Your task to perform on an android device: Go to Android settings Image 0: 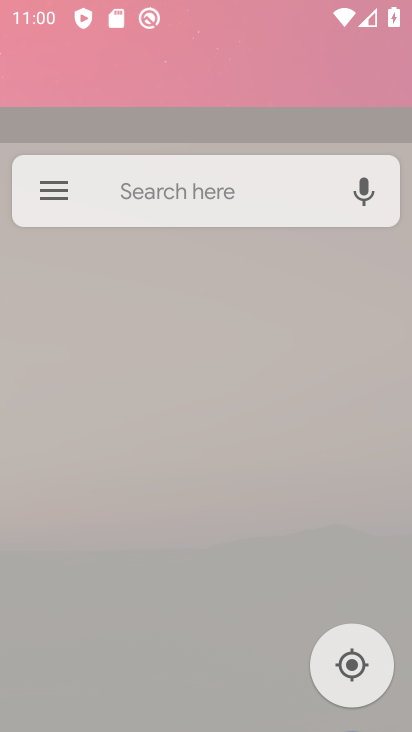
Step 0: press home button
Your task to perform on an android device: Go to Android settings Image 1: 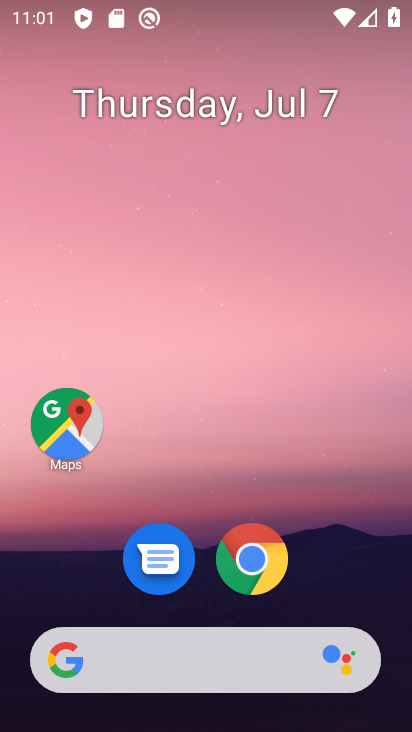
Step 1: drag from (353, 551) to (348, 71)
Your task to perform on an android device: Go to Android settings Image 2: 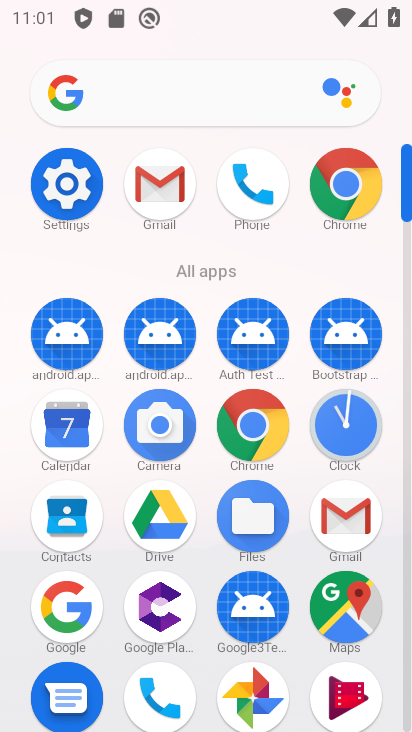
Step 2: click (82, 196)
Your task to perform on an android device: Go to Android settings Image 3: 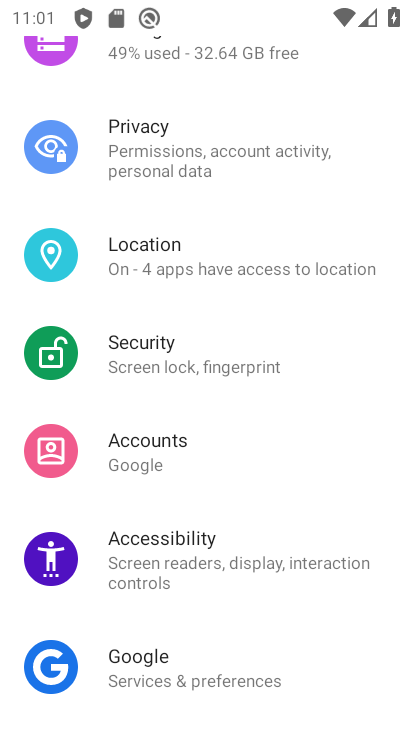
Step 3: drag from (340, 221) to (340, 360)
Your task to perform on an android device: Go to Android settings Image 4: 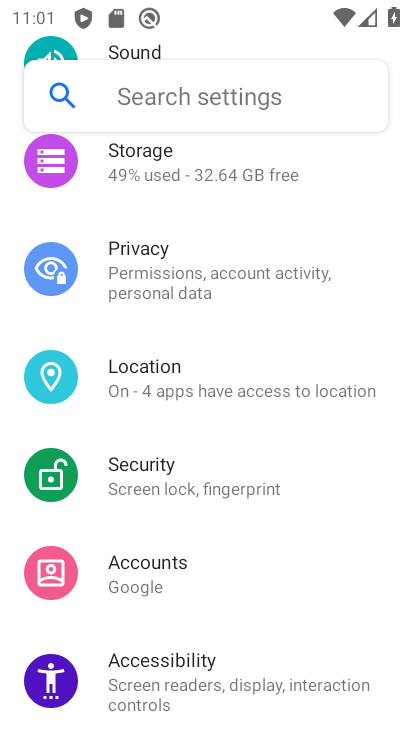
Step 4: drag from (345, 241) to (371, 431)
Your task to perform on an android device: Go to Android settings Image 5: 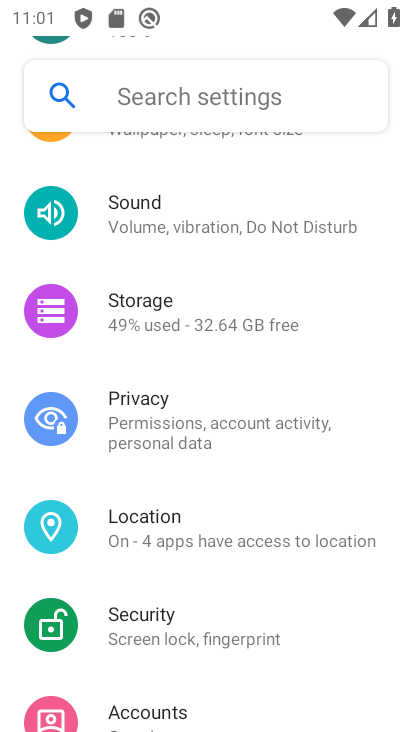
Step 5: drag from (365, 282) to (395, 465)
Your task to perform on an android device: Go to Android settings Image 6: 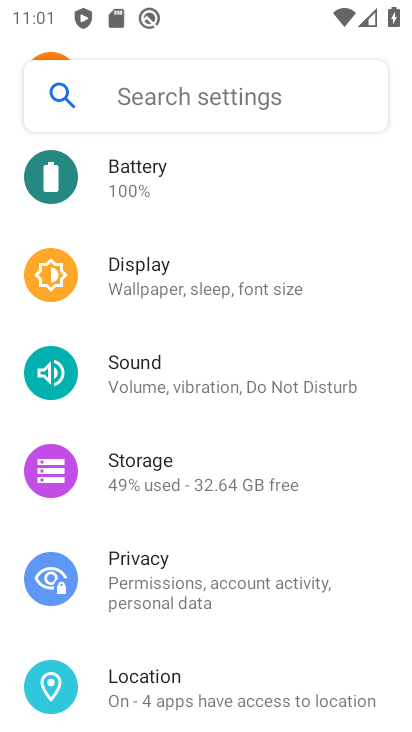
Step 6: drag from (352, 530) to (344, 345)
Your task to perform on an android device: Go to Android settings Image 7: 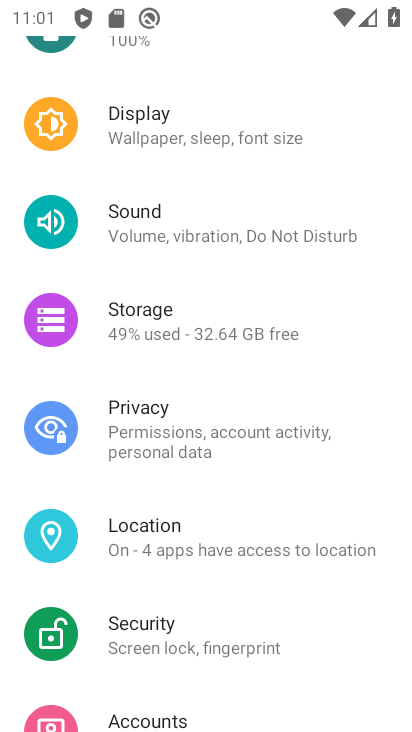
Step 7: drag from (368, 504) to (361, 325)
Your task to perform on an android device: Go to Android settings Image 8: 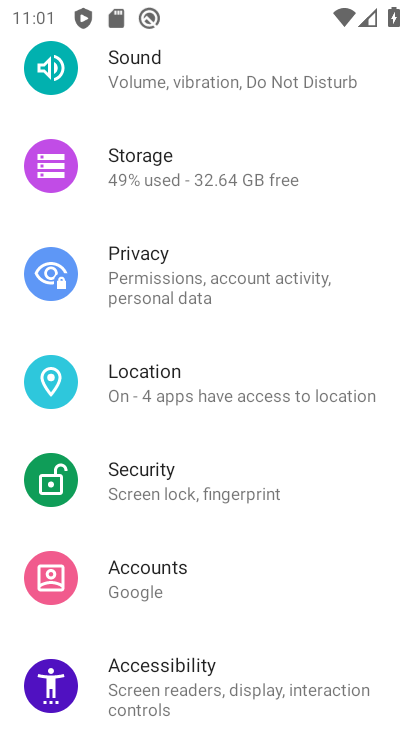
Step 8: drag from (355, 546) to (352, 364)
Your task to perform on an android device: Go to Android settings Image 9: 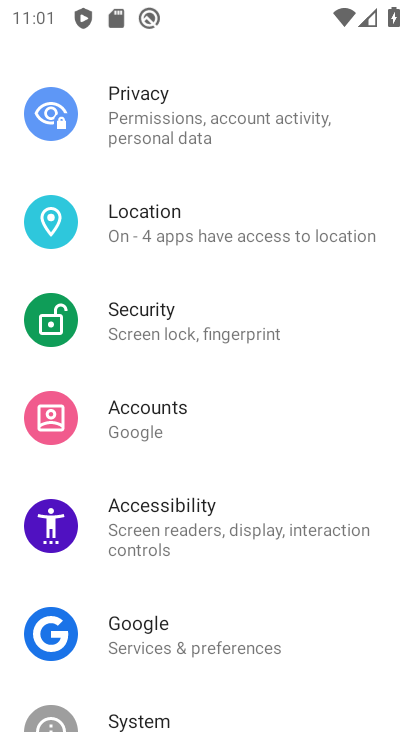
Step 9: drag from (348, 608) to (354, 440)
Your task to perform on an android device: Go to Android settings Image 10: 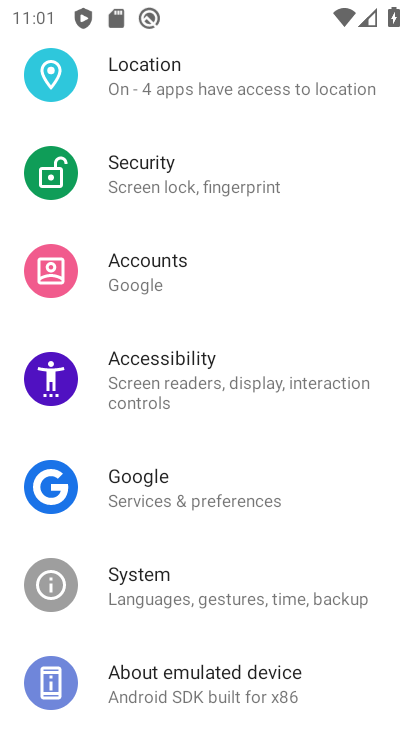
Step 10: drag from (337, 641) to (338, 476)
Your task to perform on an android device: Go to Android settings Image 11: 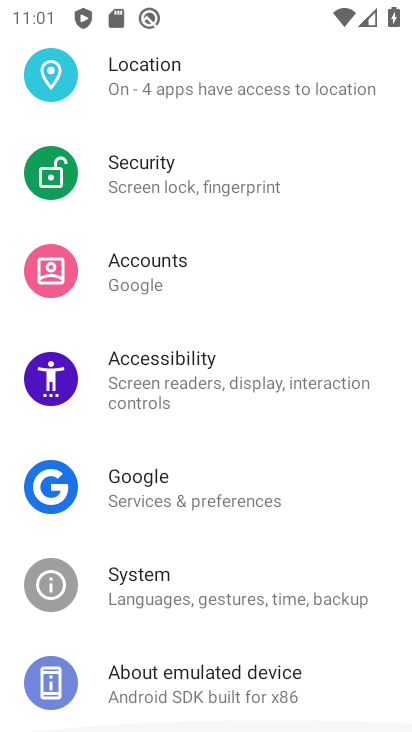
Step 11: click (322, 583)
Your task to perform on an android device: Go to Android settings Image 12: 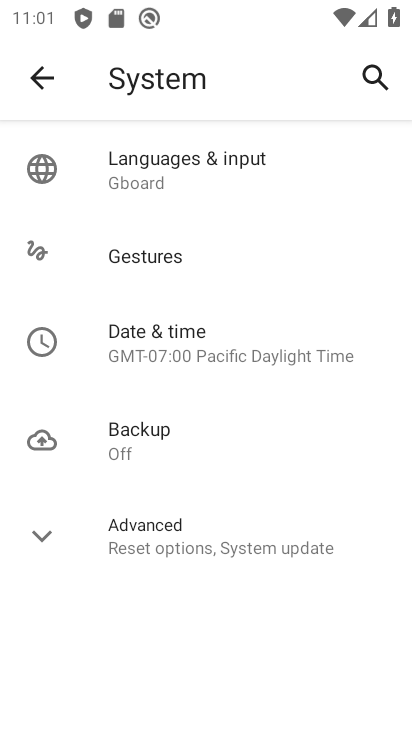
Step 12: click (269, 537)
Your task to perform on an android device: Go to Android settings Image 13: 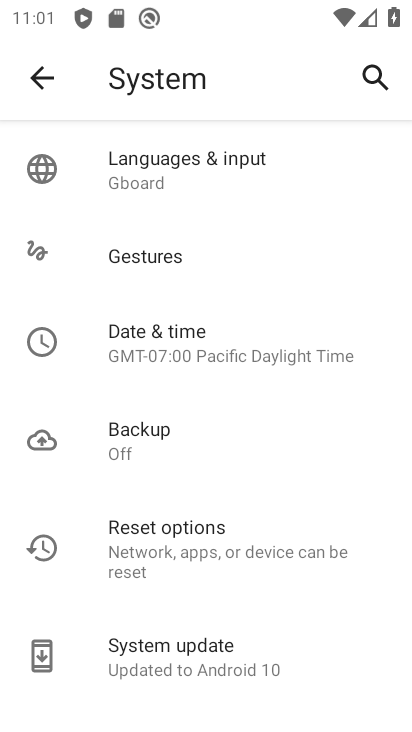
Step 13: task complete